Your task to perform on an android device: turn on translation in the chrome app Image 0: 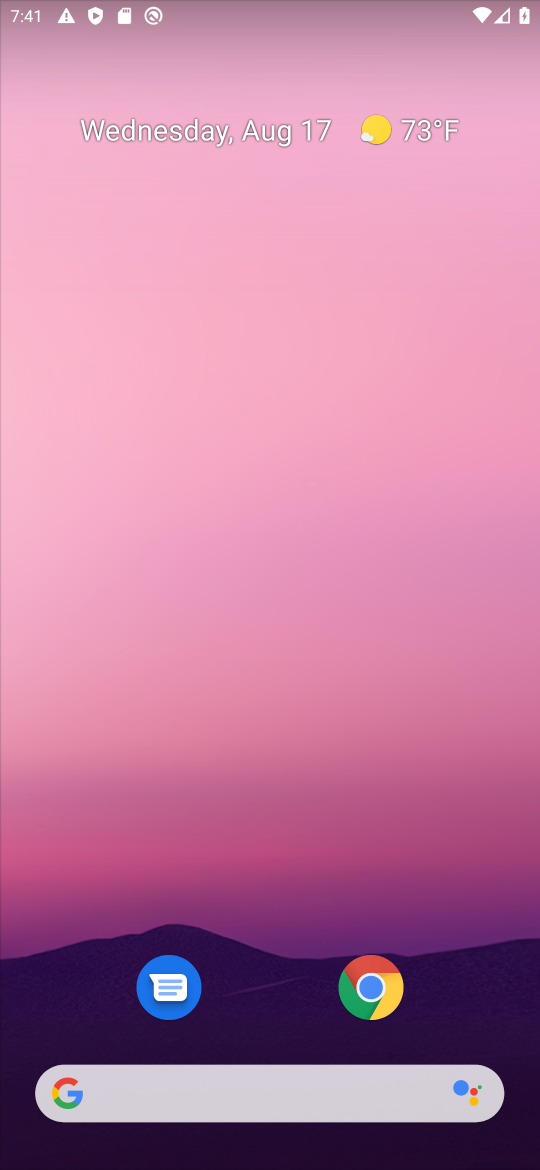
Step 0: drag from (451, 998) to (151, 41)
Your task to perform on an android device: turn on translation in the chrome app Image 1: 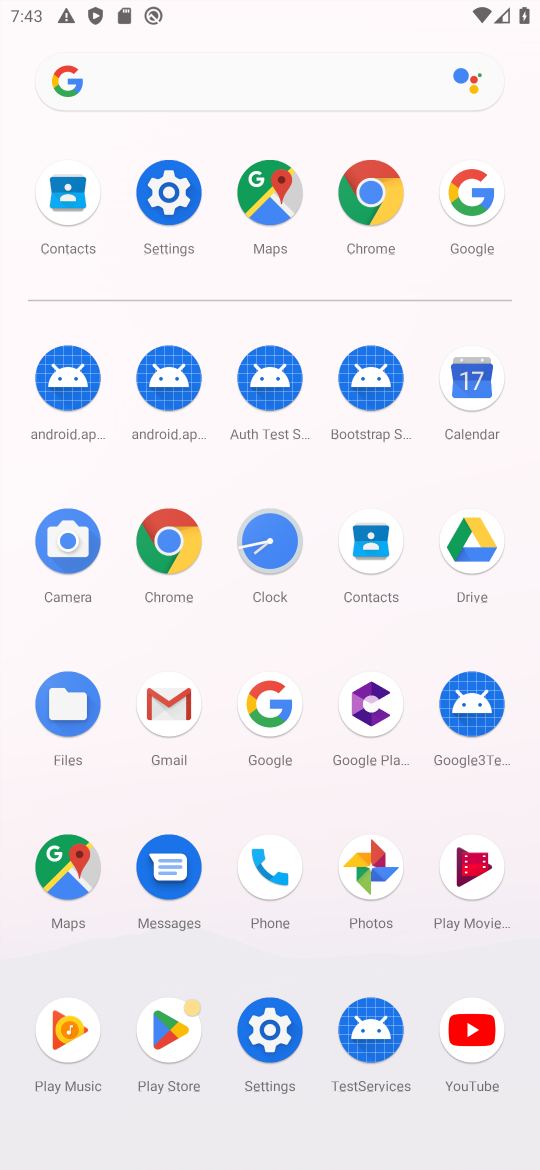
Step 1: click (162, 549)
Your task to perform on an android device: turn on translation in the chrome app Image 2: 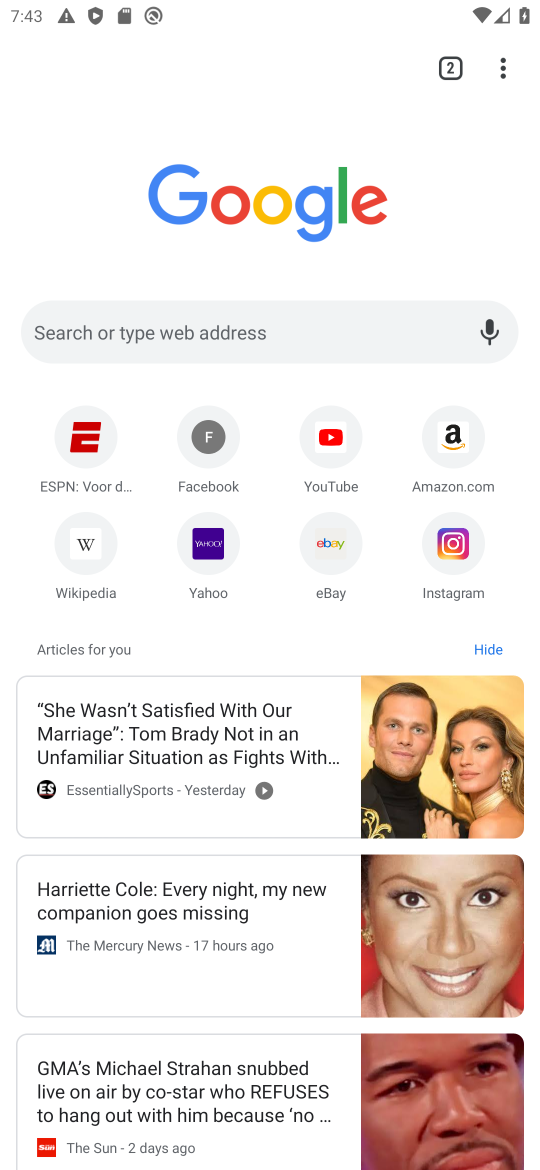
Step 2: click (510, 56)
Your task to perform on an android device: turn on translation in the chrome app Image 3: 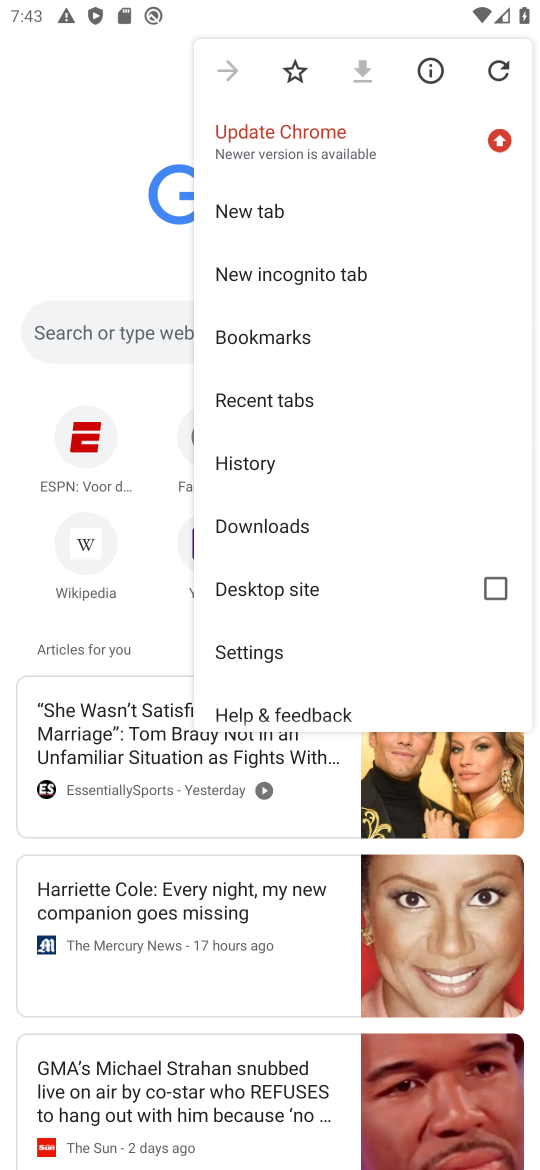
Step 3: click (257, 647)
Your task to perform on an android device: turn on translation in the chrome app Image 4: 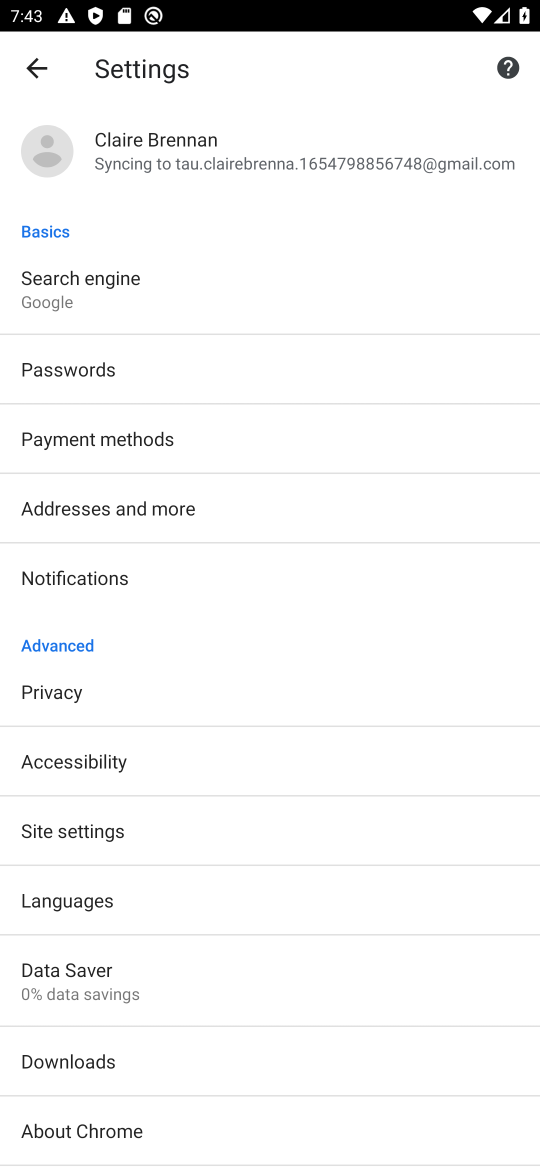
Step 4: click (99, 902)
Your task to perform on an android device: turn on translation in the chrome app Image 5: 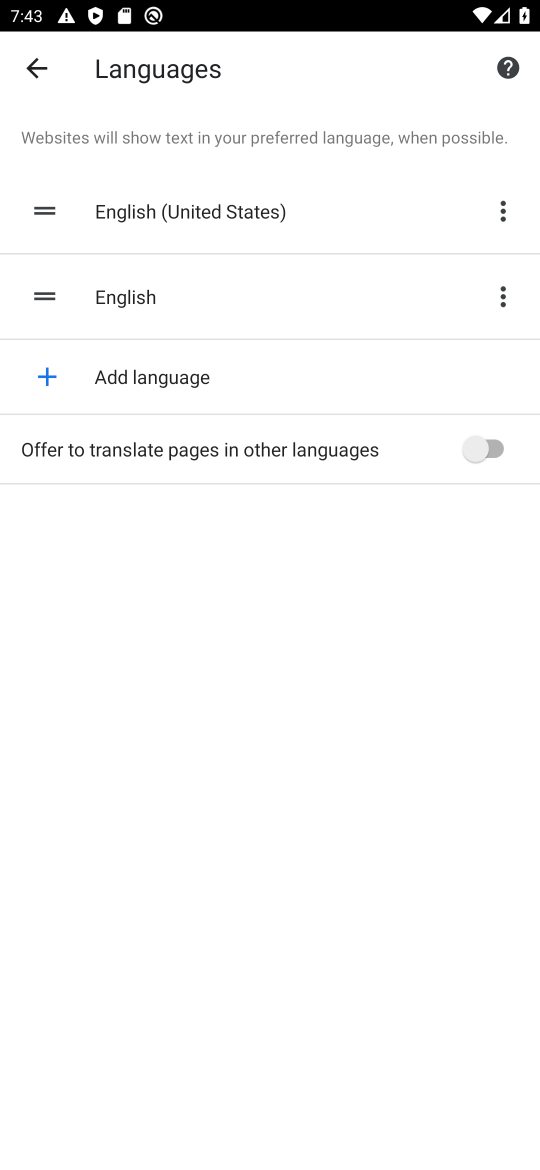
Step 5: click (420, 464)
Your task to perform on an android device: turn on translation in the chrome app Image 6: 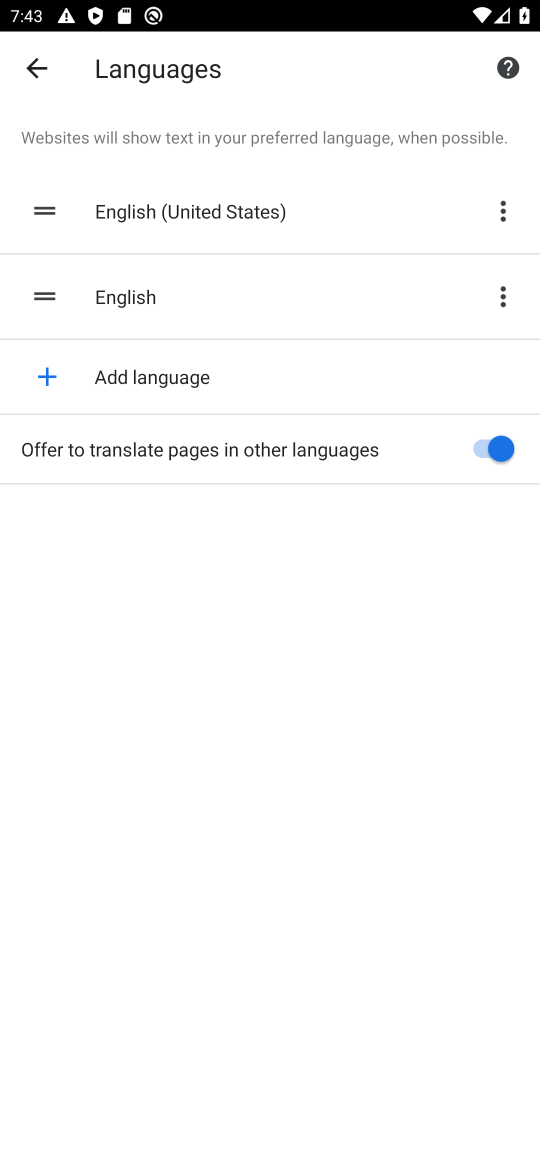
Step 6: task complete